Your task to perform on an android device: open wifi settings Image 0: 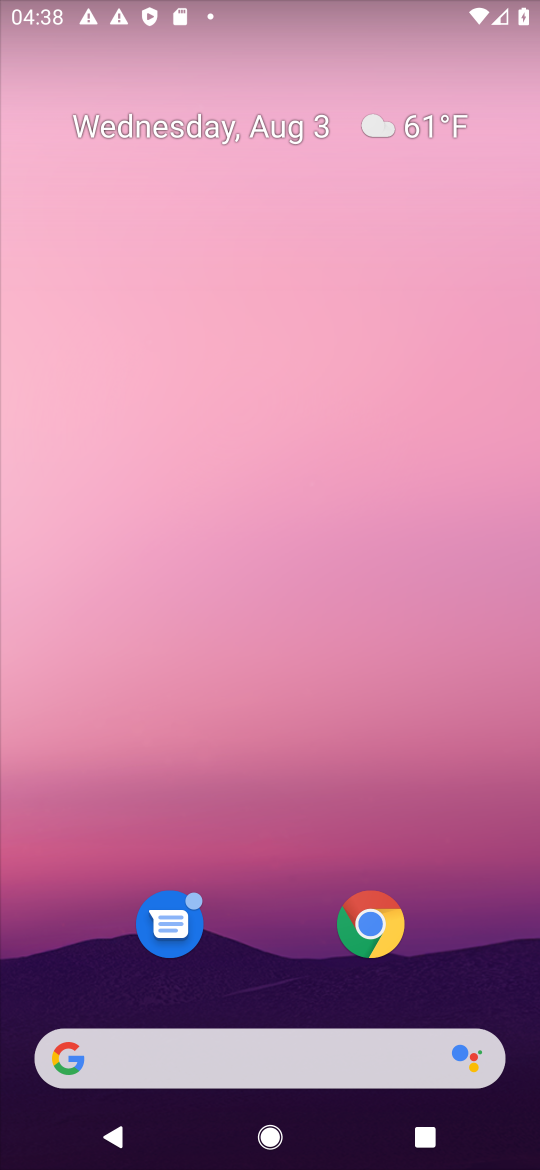
Step 0: drag from (276, 853) to (237, 381)
Your task to perform on an android device: open wifi settings Image 1: 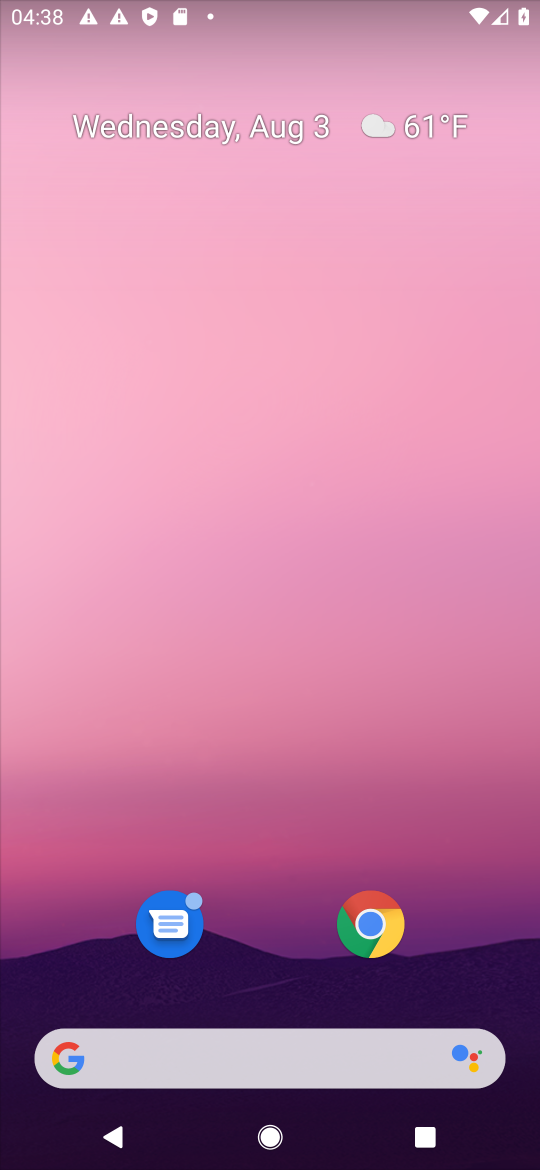
Step 1: drag from (285, 962) to (285, 384)
Your task to perform on an android device: open wifi settings Image 2: 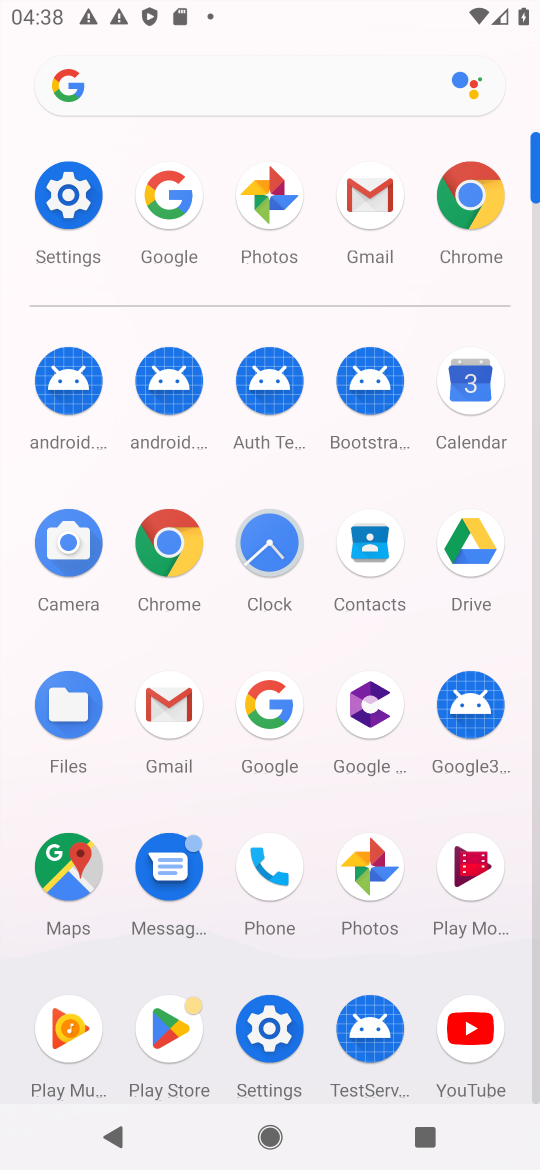
Step 2: click (51, 202)
Your task to perform on an android device: open wifi settings Image 3: 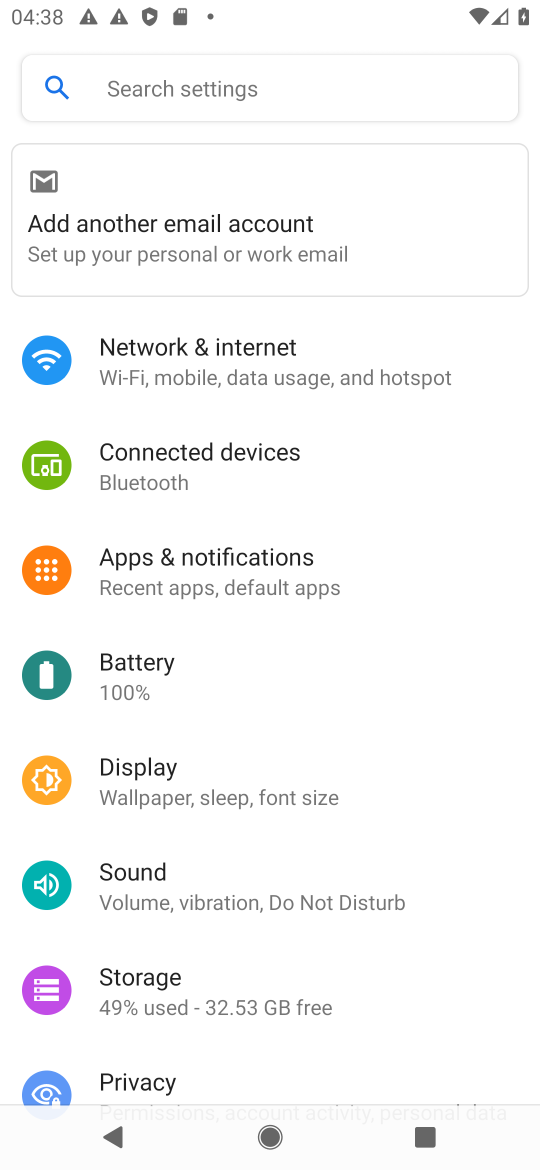
Step 3: click (211, 369)
Your task to perform on an android device: open wifi settings Image 4: 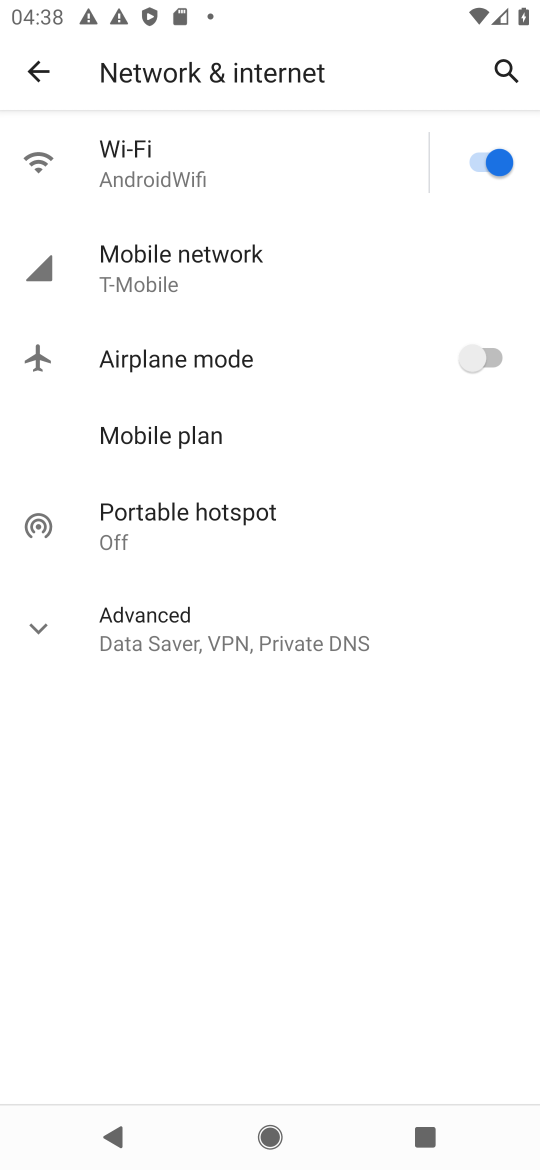
Step 4: click (217, 173)
Your task to perform on an android device: open wifi settings Image 5: 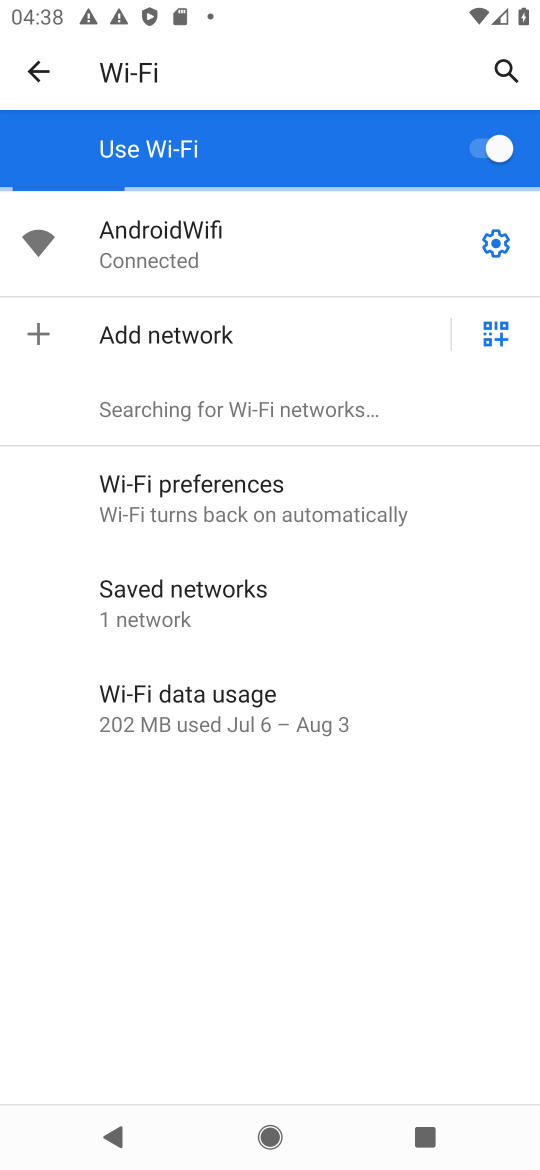
Step 5: task complete